Your task to perform on an android device: open app "Facebook Messenger" Image 0: 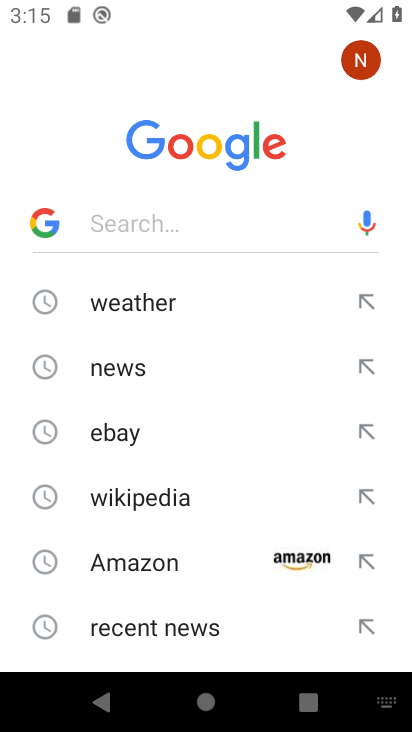
Step 0: press home button
Your task to perform on an android device: open app "Facebook Messenger" Image 1: 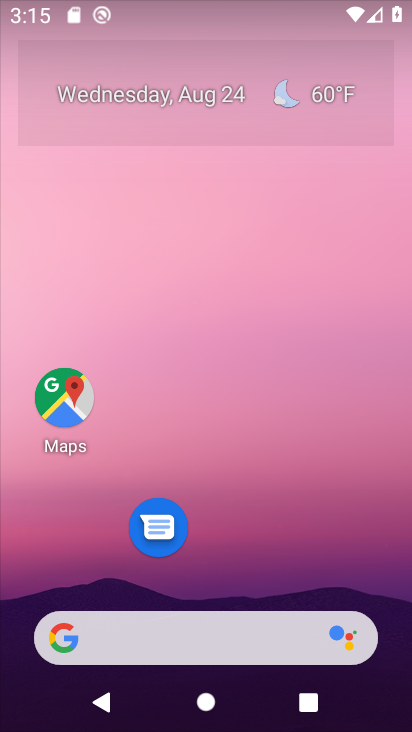
Step 1: drag from (248, 577) to (303, 80)
Your task to perform on an android device: open app "Facebook Messenger" Image 2: 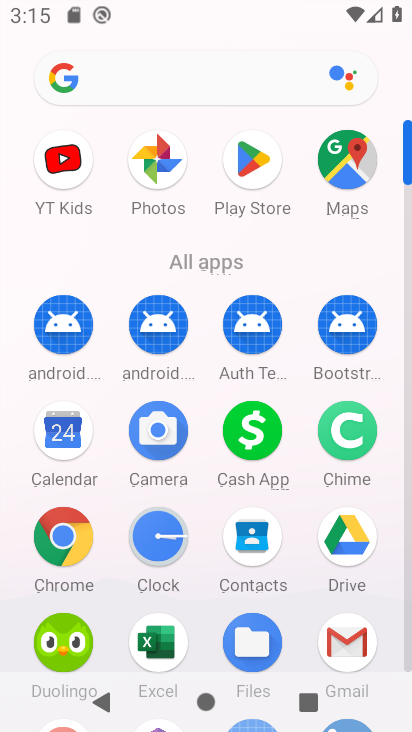
Step 2: click (268, 153)
Your task to perform on an android device: open app "Facebook Messenger" Image 3: 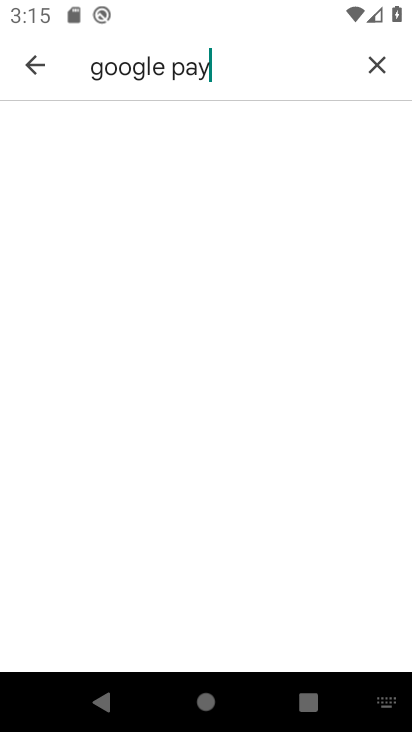
Step 3: click (359, 63)
Your task to perform on an android device: open app "Facebook Messenger" Image 4: 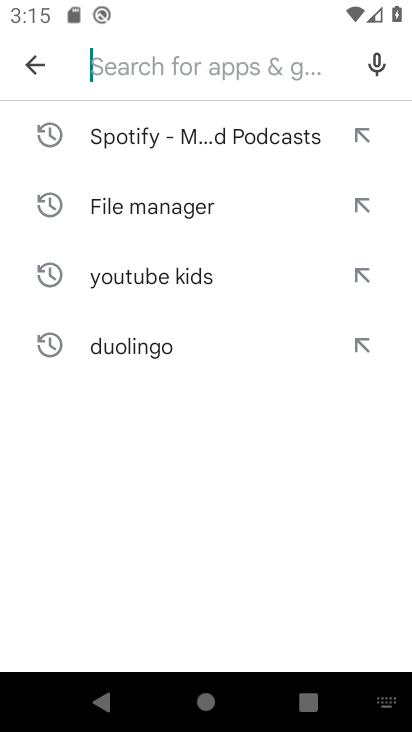
Step 4: type "facebook"
Your task to perform on an android device: open app "Facebook Messenger" Image 5: 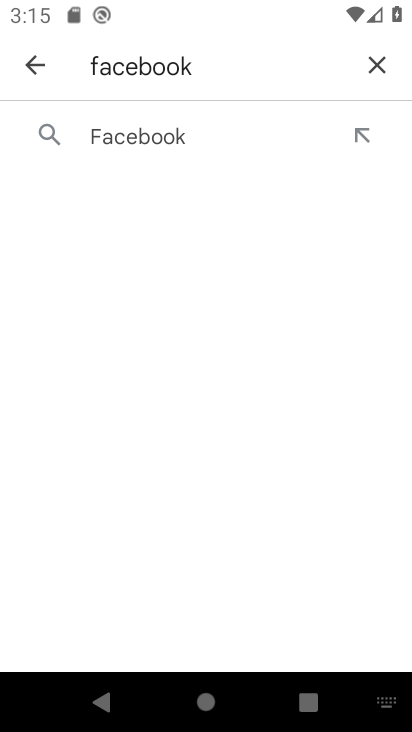
Step 5: click (222, 138)
Your task to perform on an android device: open app "Facebook Messenger" Image 6: 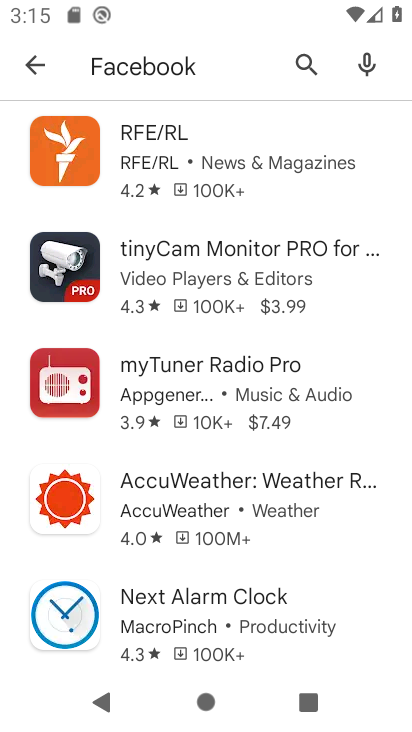
Step 6: task complete